Your task to perform on an android device: Check the weather Image 0: 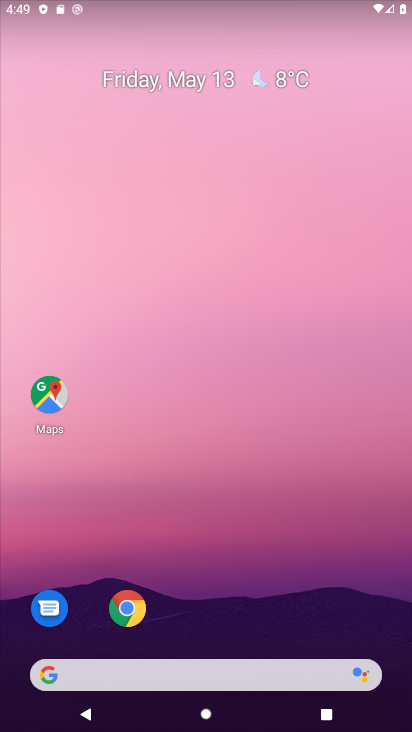
Step 0: drag from (256, 628) to (304, 116)
Your task to perform on an android device: Check the weather Image 1: 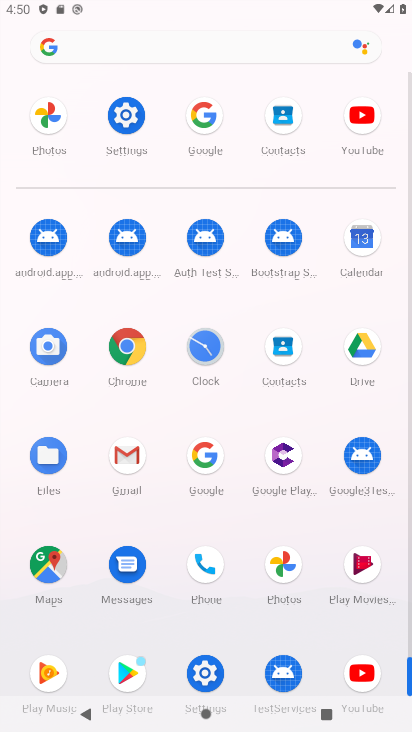
Step 1: click (200, 454)
Your task to perform on an android device: Check the weather Image 2: 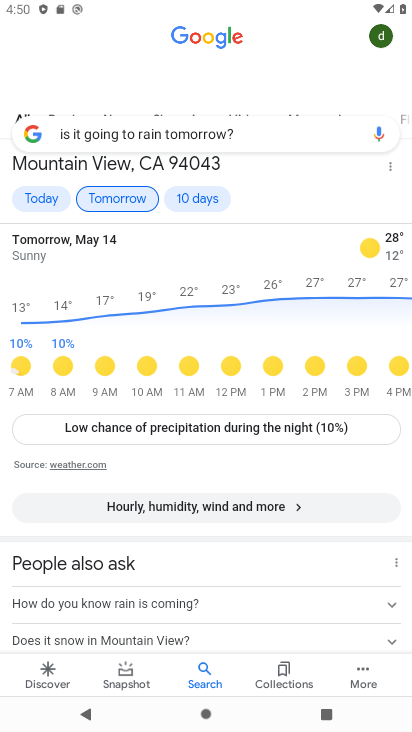
Step 2: drag from (252, 215) to (284, 438)
Your task to perform on an android device: Check the weather Image 3: 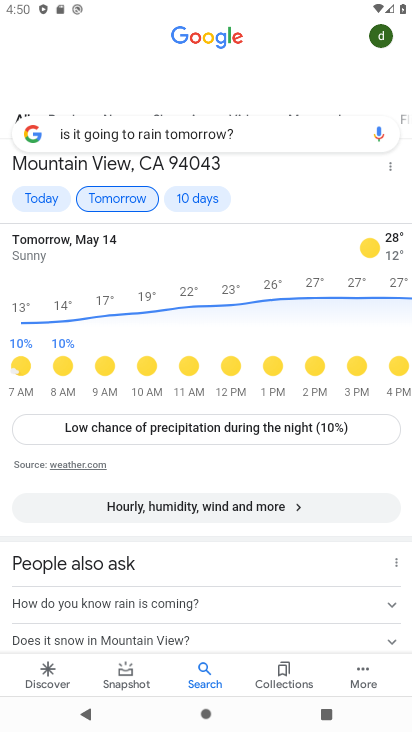
Step 3: drag from (238, 211) to (226, 428)
Your task to perform on an android device: Check the weather Image 4: 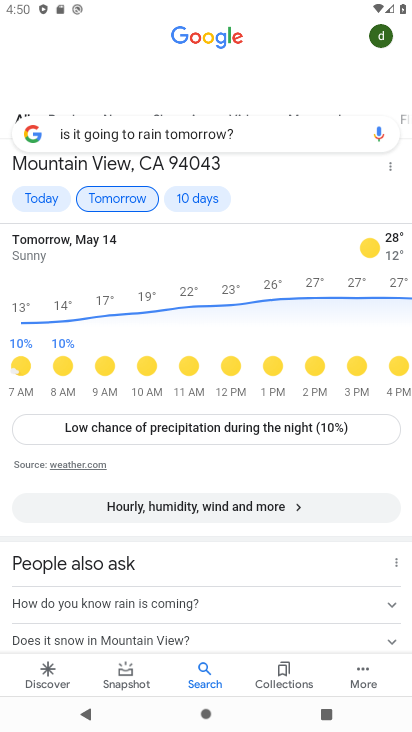
Step 4: click (52, 192)
Your task to perform on an android device: Check the weather Image 5: 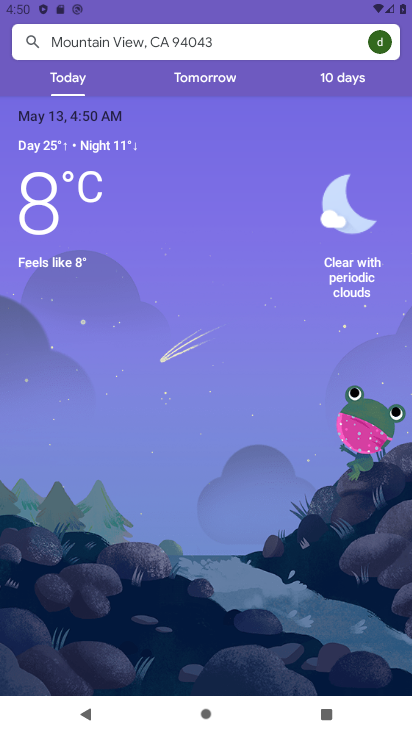
Step 5: task complete